Your task to perform on an android device: Find coffee shops on Maps Image 0: 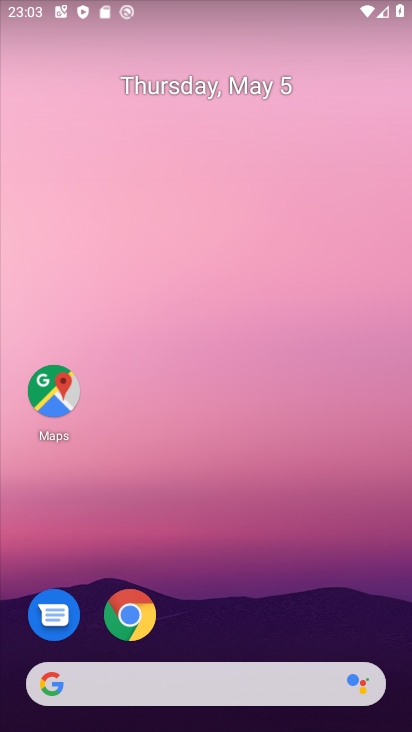
Step 0: drag from (235, 614) to (235, 100)
Your task to perform on an android device: Find coffee shops on Maps Image 1: 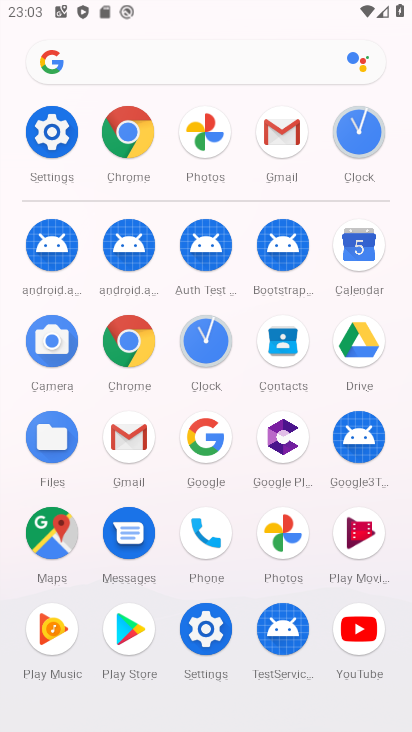
Step 1: click (52, 539)
Your task to perform on an android device: Find coffee shops on Maps Image 2: 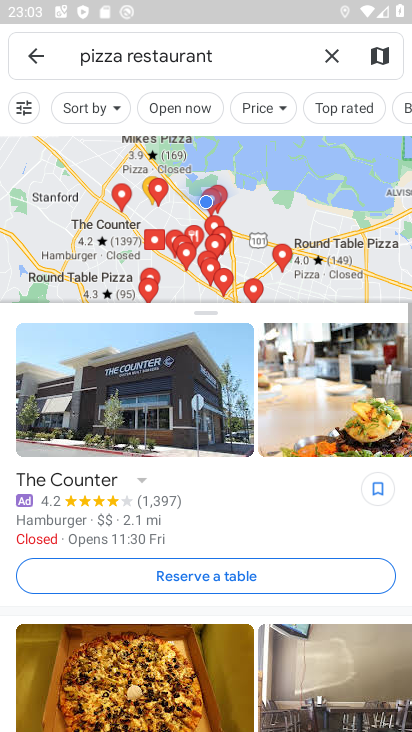
Step 2: click (335, 52)
Your task to perform on an android device: Find coffee shops on Maps Image 3: 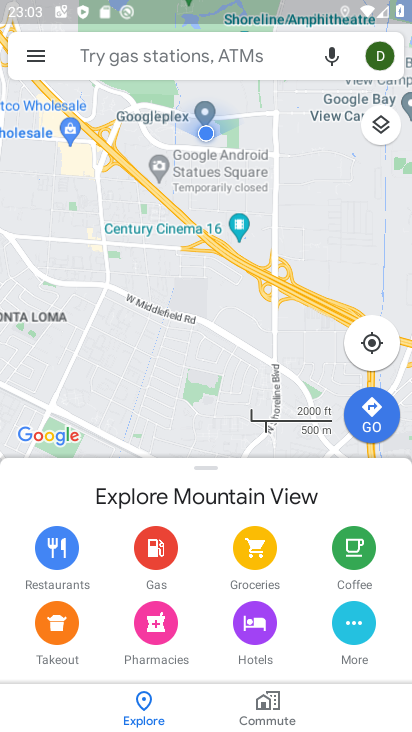
Step 3: click (166, 53)
Your task to perform on an android device: Find coffee shops on Maps Image 4: 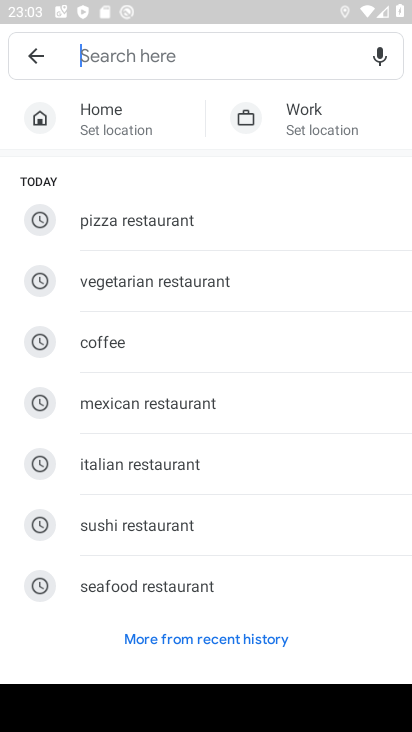
Step 4: type "coffee shop"
Your task to perform on an android device: Find coffee shops on Maps Image 5: 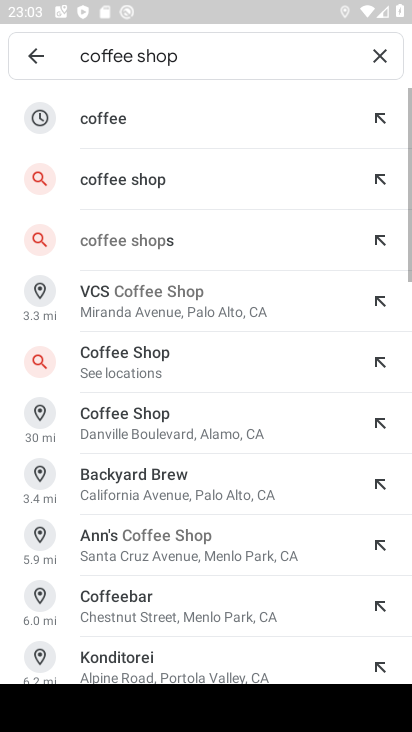
Step 5: click (125, 178)
Your task to perform on an android device: Find coffee shops on Maps Image 6: 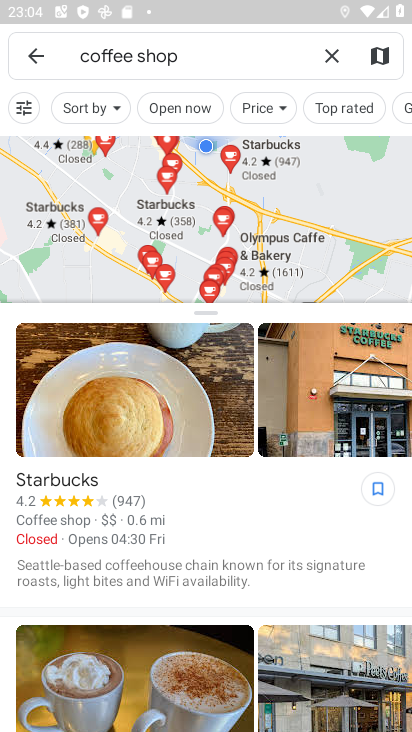
Step 6: task complete